Your task to perform on an android device: Check the settings for the Uber app Image 0: 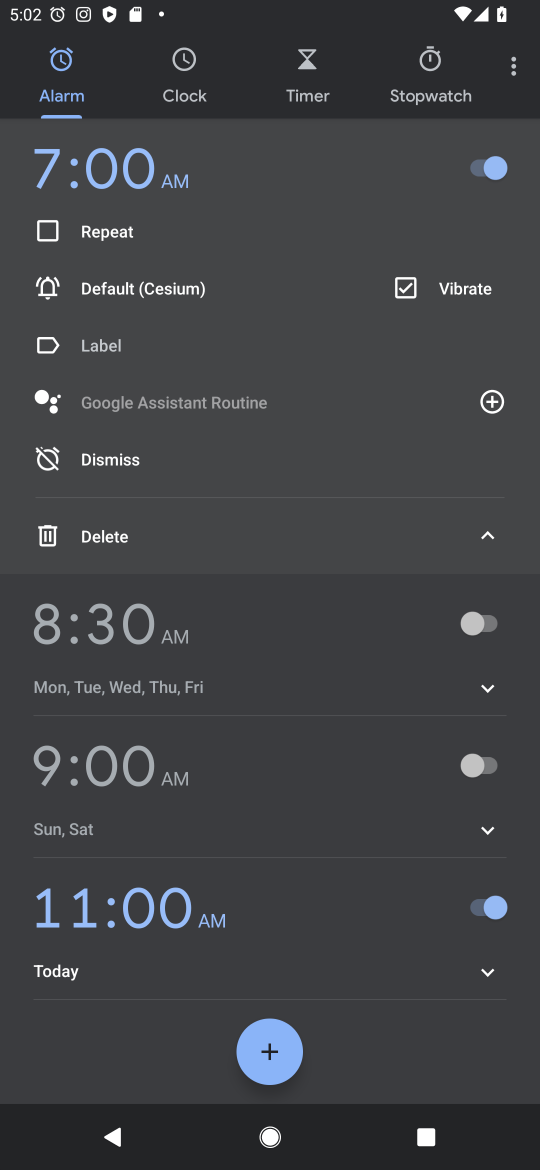
Step 0: press home button
Your task to perform on an android device: Check the settings for the Uber app Image 1: 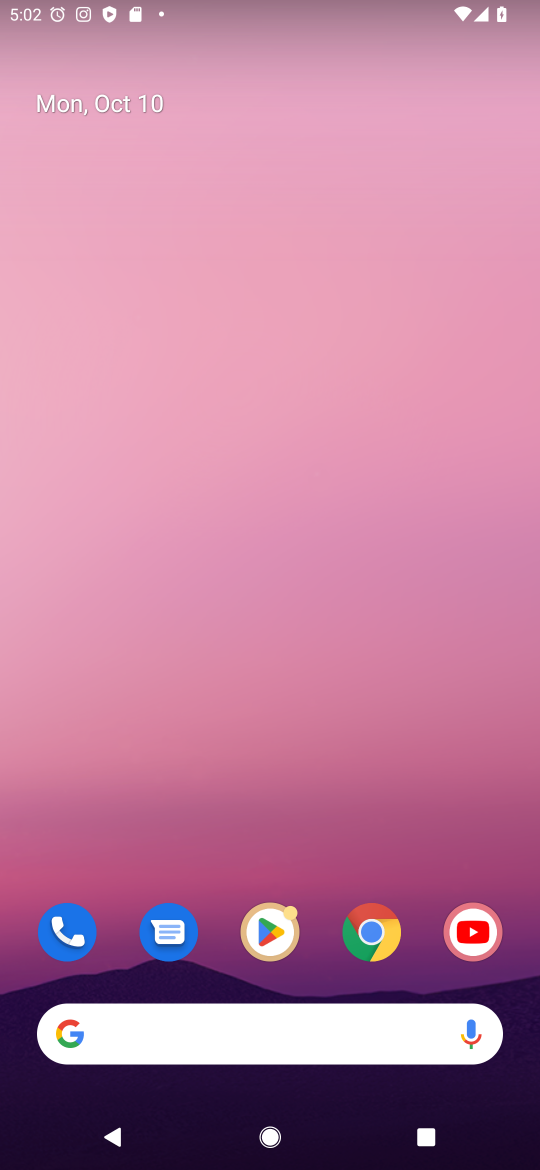
Step 1: drag from (479, 776) to (484, 94)
Your task to perform on an android device: Check the settings for the Uber app Image 2: 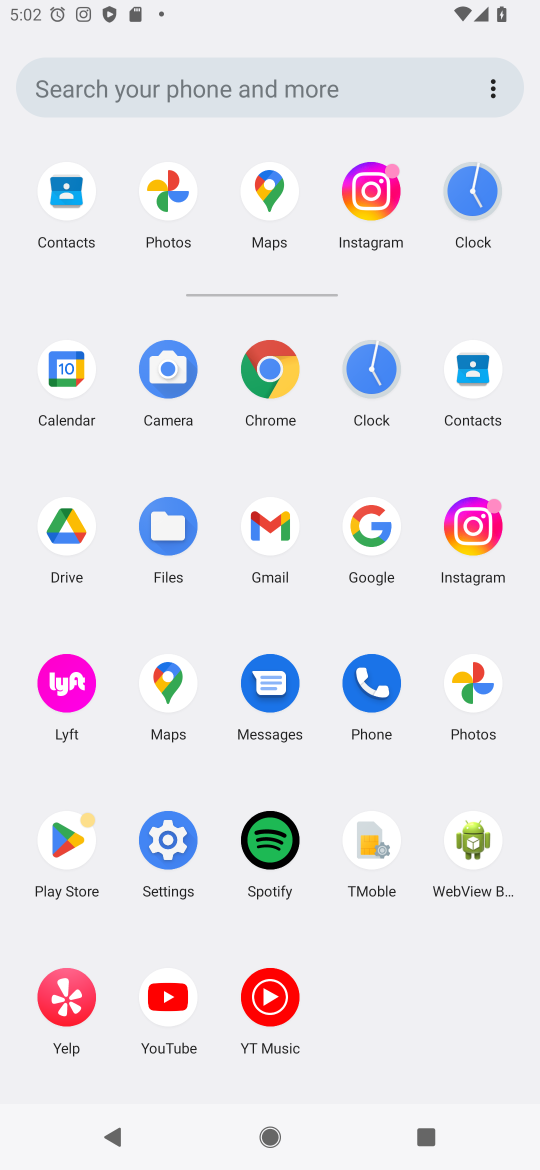
Step 2: click (68, 854)
Your task to perform on an android device: Check the settings for the Uber app Image 3: 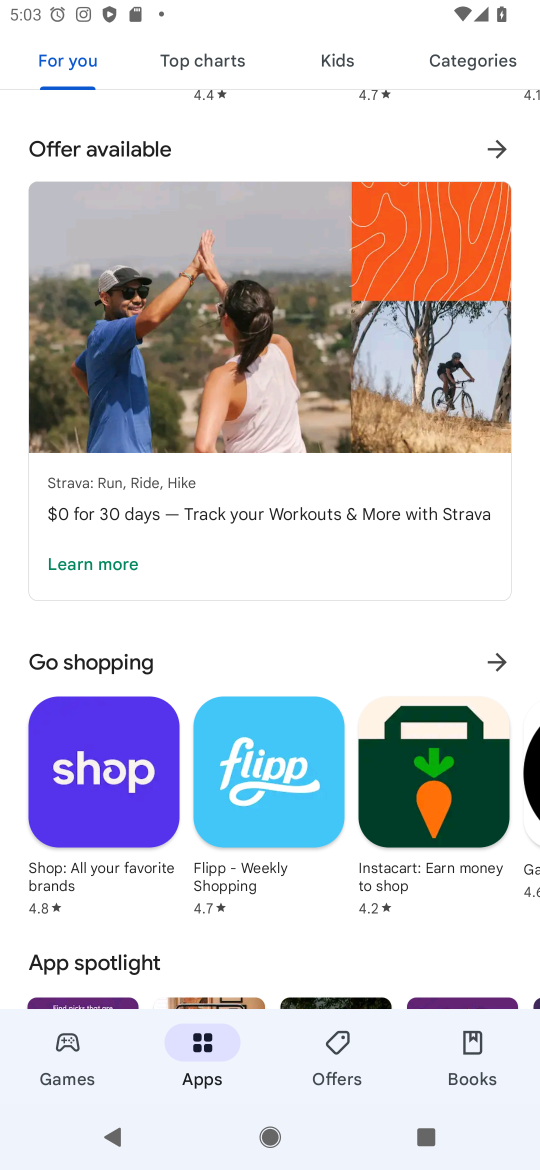
Step 3: drag from (293, 219) to (231, 912)
Your task to perform on an android device: Check the settings for the Uber app Image 4: 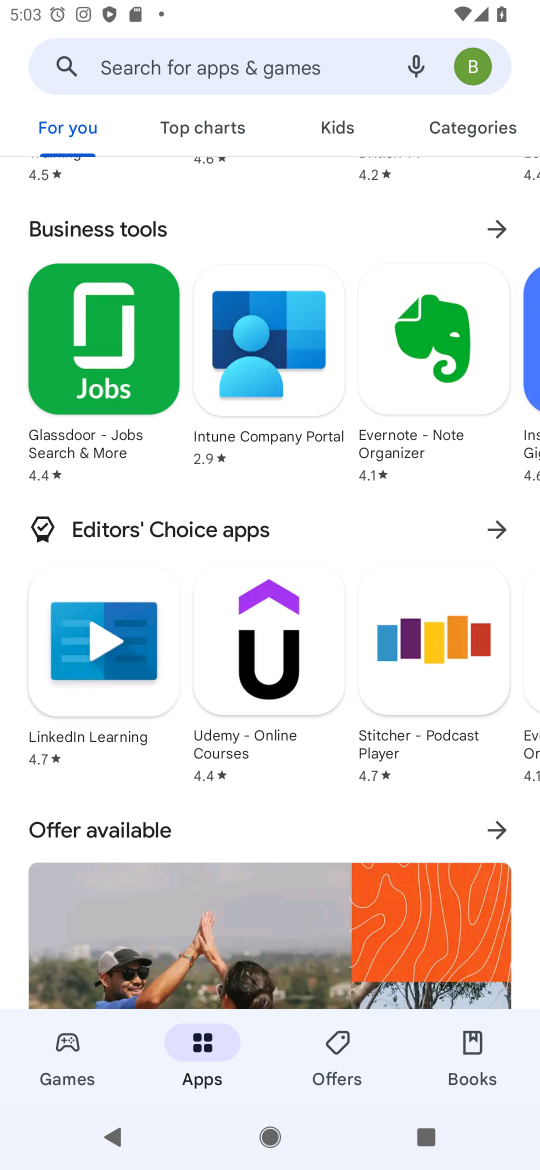
Step 4: click (297, 70)
Your task to perform on an android device: Check the settings for the Uber app Image 5: 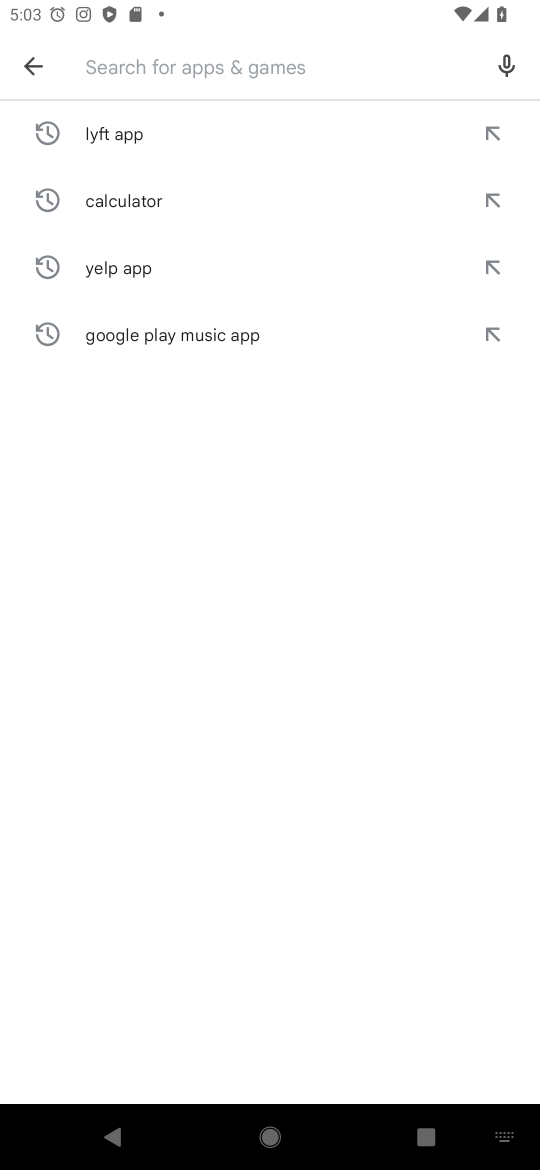
Step 5: type "Uber app"
Your task to perform on an android device: Check the settings for the Uber app Image 6: 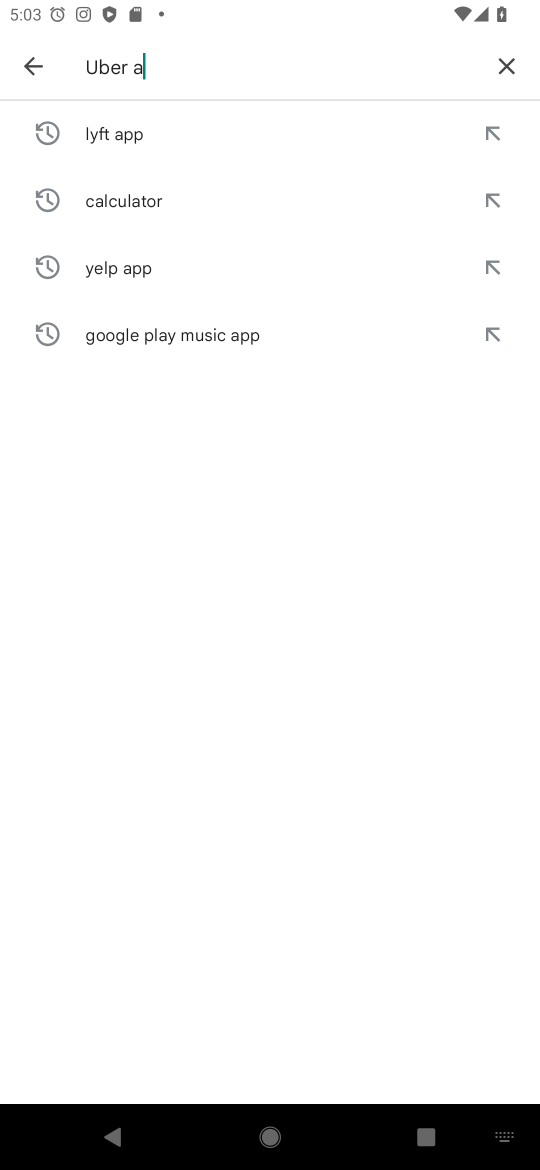
Step 6: press enter
Your task to perform on an android device: Check the settings for the Uber app Image 7: 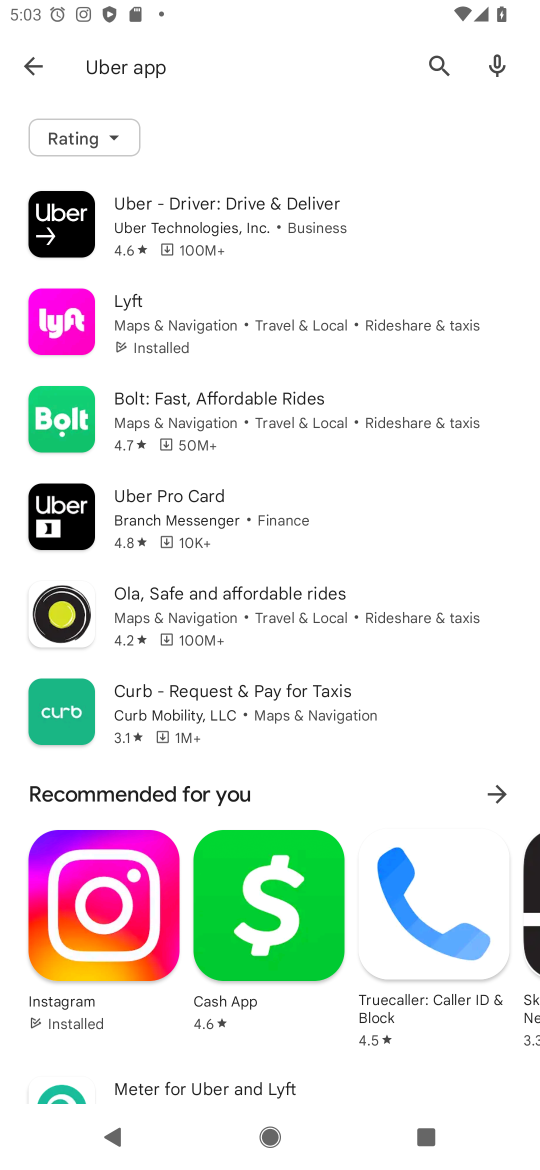
Step 7: click (196, 218)
Your task to perform on an android device: Check the settings for the Uber app Image 8: 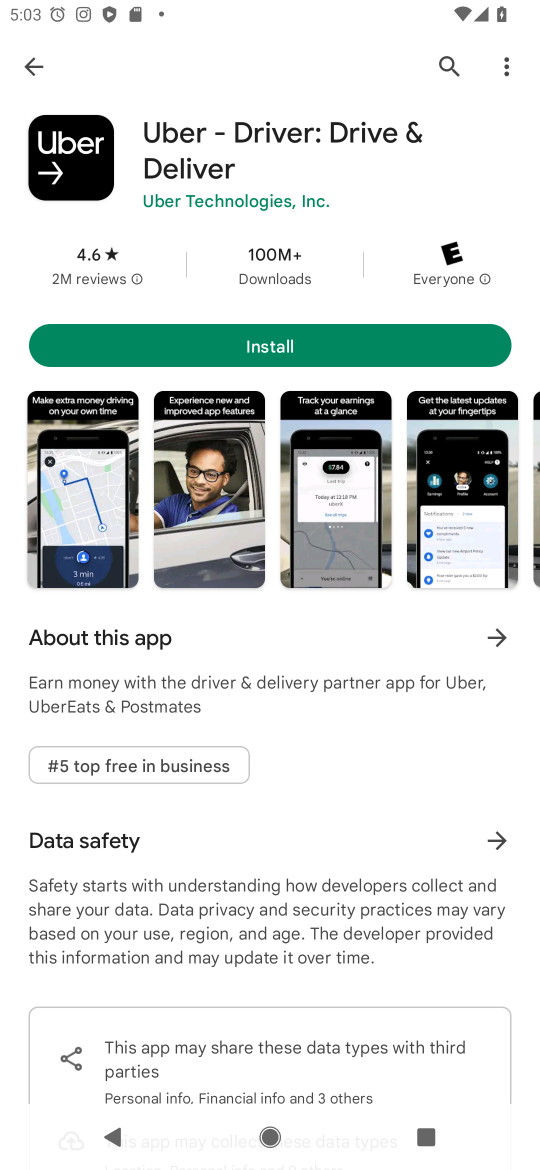
Step 8: task complete